Your task to perform on an android device: add a label to a message in the gmail app Image 0: 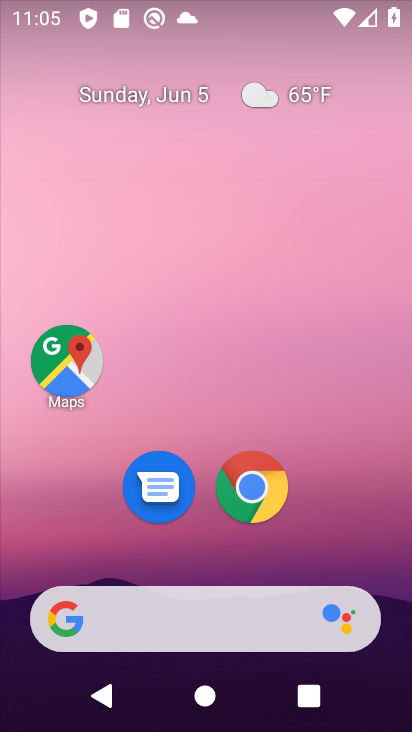
Step 0: drag from (359, 506) to (296, 121)
Your task to perform on an android device: add a label to a message in the gmail app Image 1: 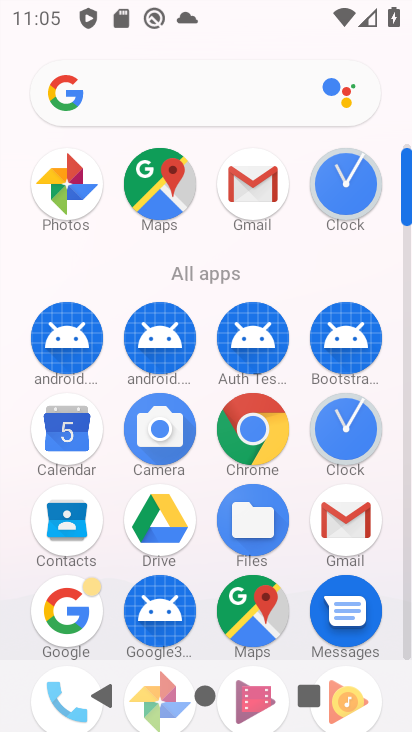
Step 1: click (251, 184)
Your task to perform on an android device: add a label to a message in the gmail app Image 2: 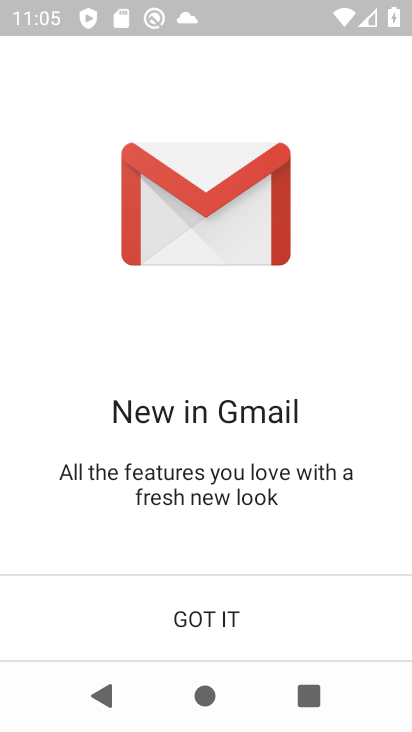
Step 2: click (215, 613)
Your task to perform on an android device: add a label to a message in the gmail app Image 3: 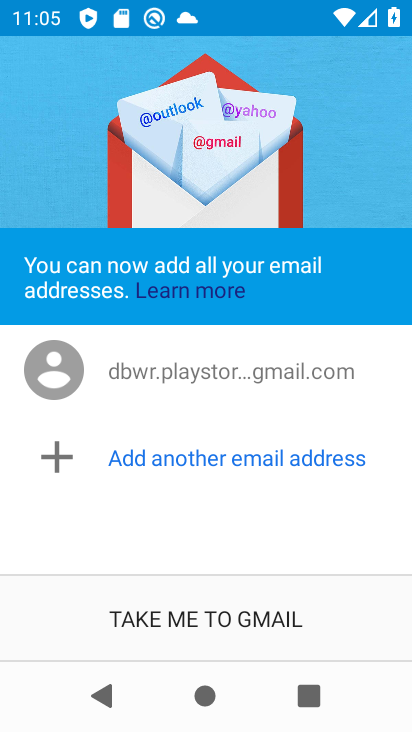
Step 3: click (215, 613)
Your task to perform on an android device: add a label to a message in the gmail app Image 4: 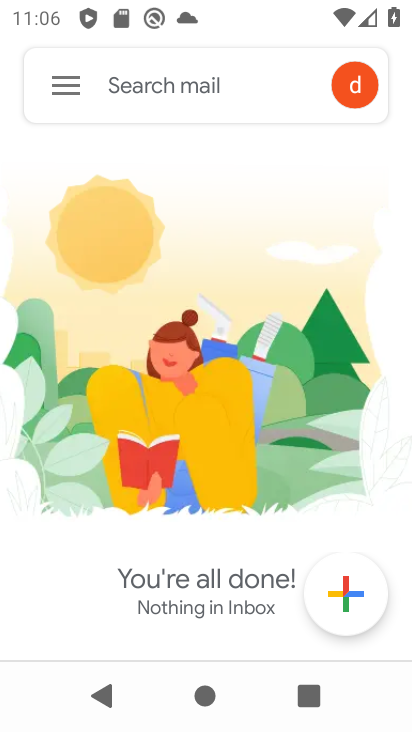
Step 4: click (80, 85)
Your task to perform on an android device: add a label to a message in the gmail app Image 5: 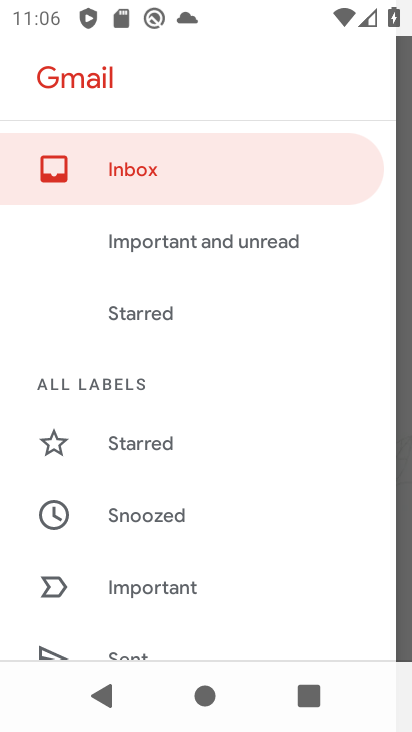
Step 5: drag from (157, 466) to (179, 342)
Your task to perform on an android device: add a label to a message in the gmail app Image 6: 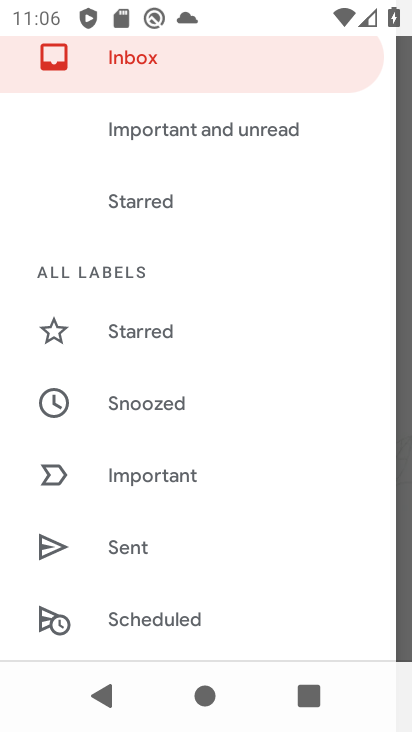
Step 6: drag from (151, 472) to (157, 352)
Your task to perform on an android device: add a label to a message in the gmail app Image 7: 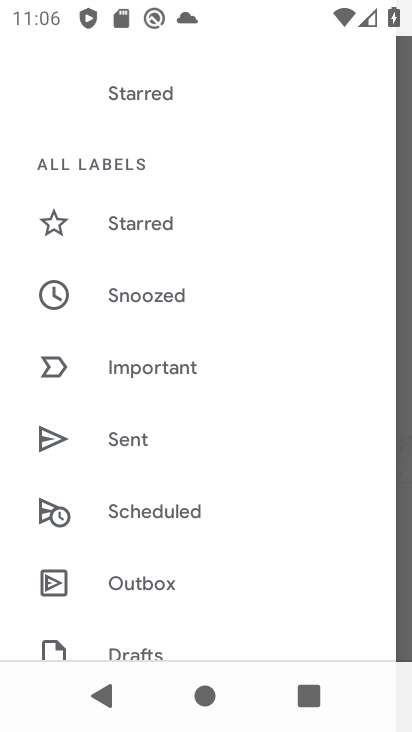
Step 7: drag from (145, 481) to (154, 382)
Your task to perform on an android device: add a label to a message in the gmail app Image 8: 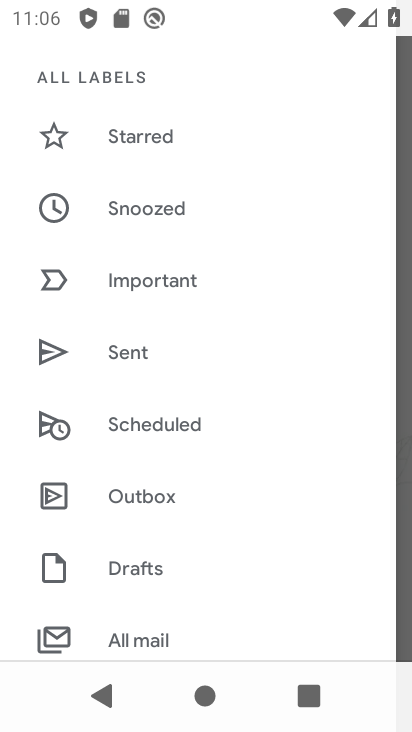
Step 8: drag from (180, 526) to (166, 370)
Your task to perform on an android device: add a label to a message in the gmail app Image 9: 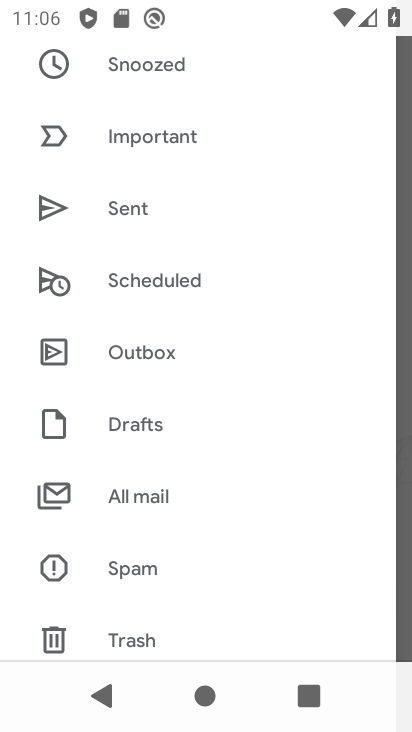
Step 9: drag from (117, 463) to (149, 376)
Your task to perform on an android device: add a label to a message in the gmail app Image 10: 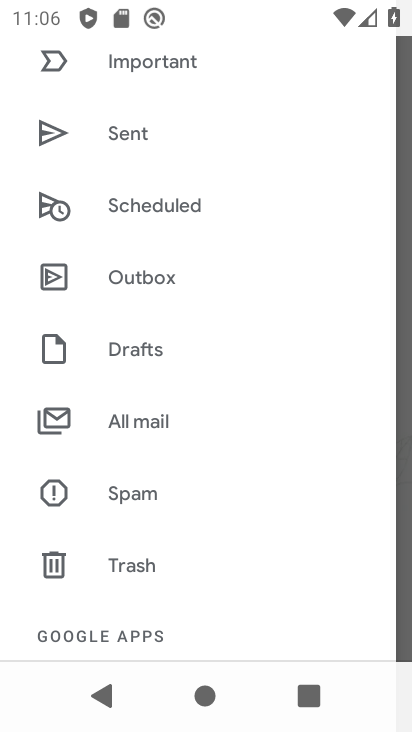
Step 10: click (194, 442)
Your task to perform on an android device: add a label to a message in the gmail app Image 11: 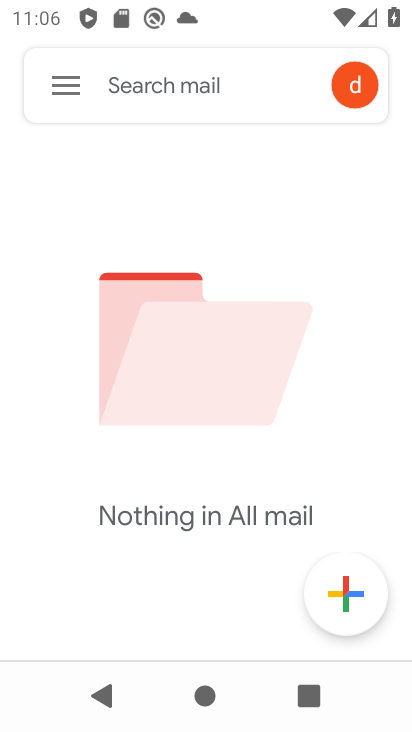
Step 11: task complete